Your task to perform on an android device: turn off data saver in the chrome app Image 0: 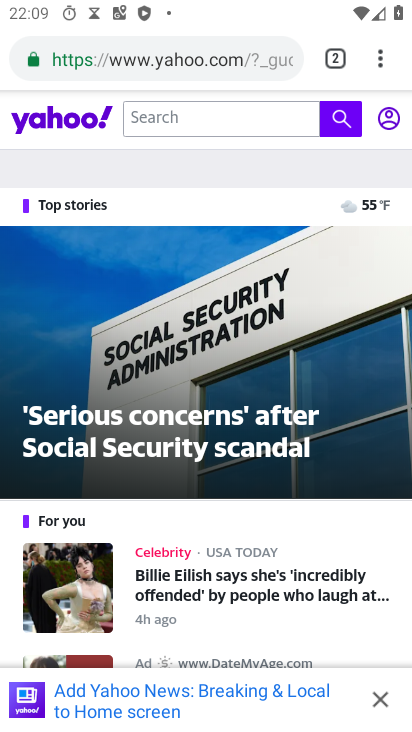
Step 0: press home button
Your task to perform on an android device: turn off data saver in the chrome app Image 1: 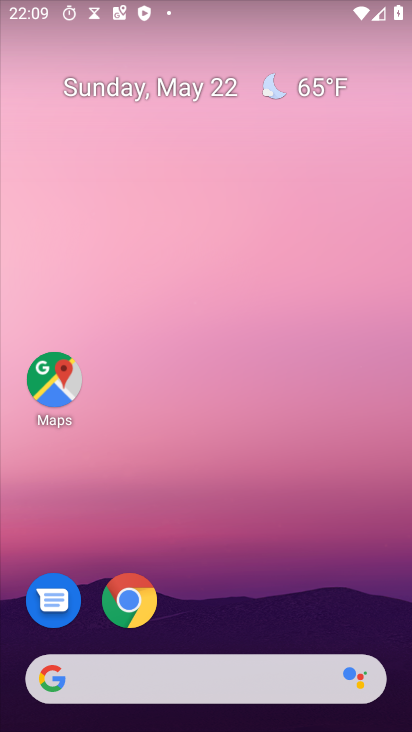
Step 1: drag from (243, 619) to (202, 280)
Your task to perform on an android device: turn off data saver in the chrome app Image 2: 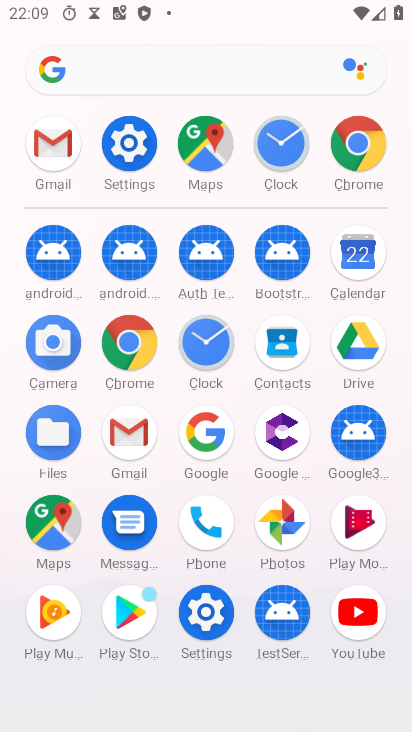
Step 2: click (352, 176)
Your task to perform on an android device: turn off data saver in the chrome app Image 3: 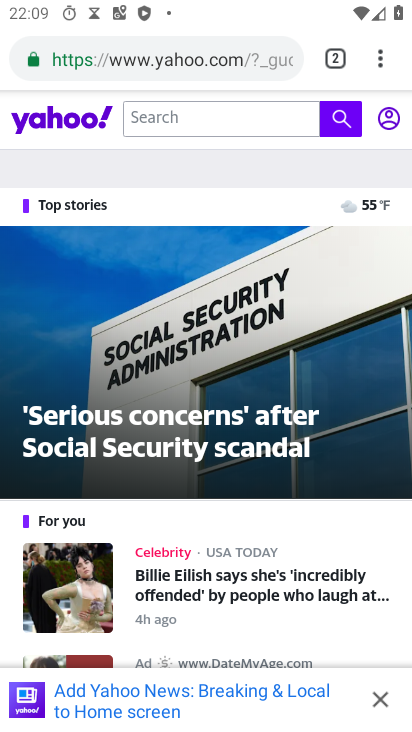
Step 3: click (383, 64)
Your task to perform on an android device: turn off data saver in the chrome app Image 4: 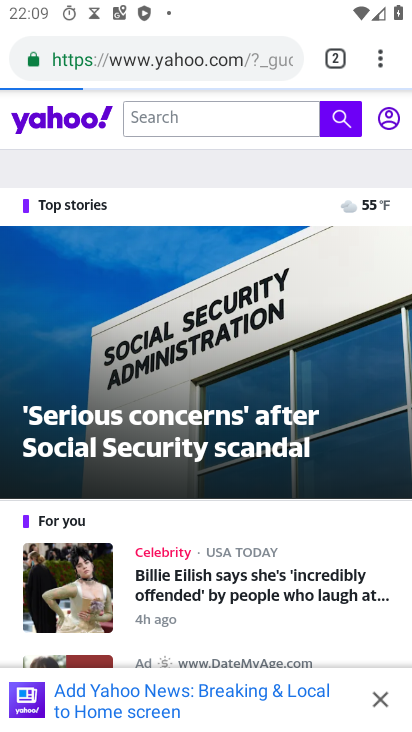
Step 4: click (383, 64)
Your task to perform on an android device: turn off data saver in the chrome app Image 5: 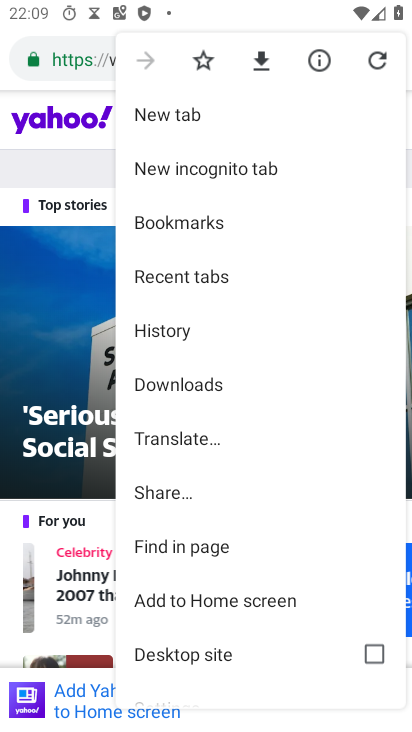
Step 5: drag from (196, 522) to (196, 367)
Your task to perform on an android device: turn off data saver in the chrome app Image 6: 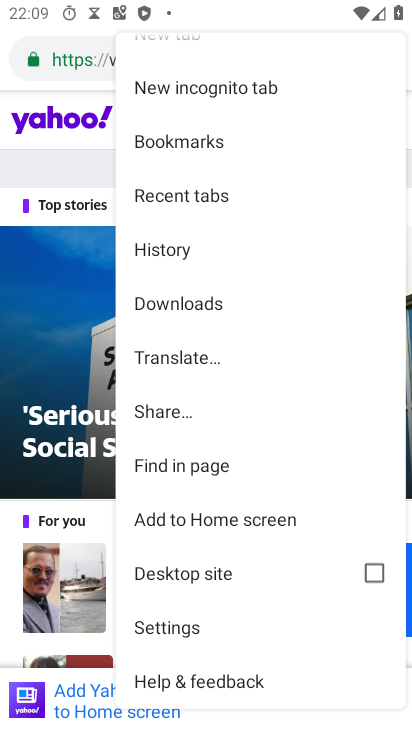
Step 6: click (186, 622)
Your task to perform on an android device: turn off data saver in the chrome app Image 7: 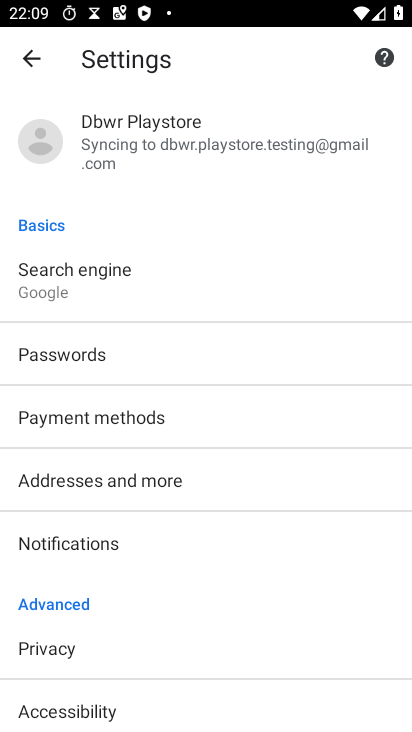
Step 7: drag from (143, 667) to (136, 413)
Your task to perform on an android device: turn off data saver in the chrome app Image 8: 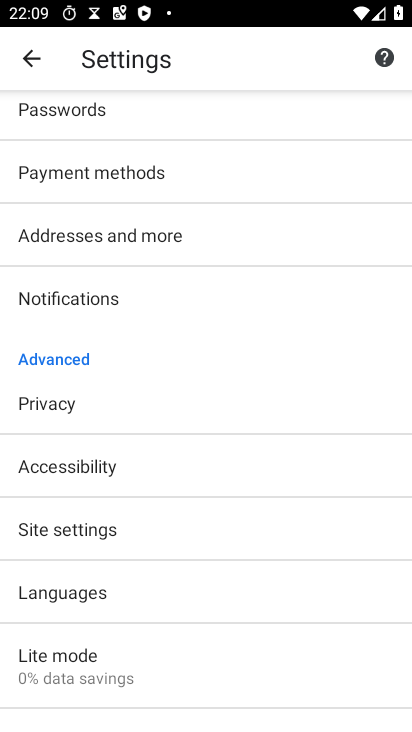
Step 8: drag from (161, 680) to (184, 393)
Your task to perform on an android device: turn off data saver in the chrome app Image 9: 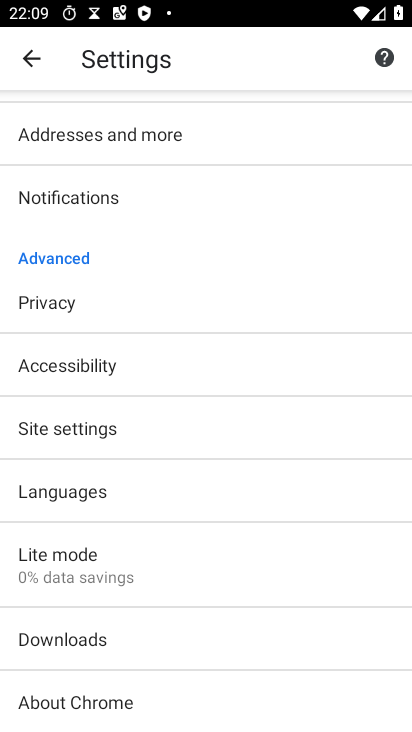
Step 9: click (69, 572)
Your task to perform on an android device: turn off data saver in the chrome app Image 10: 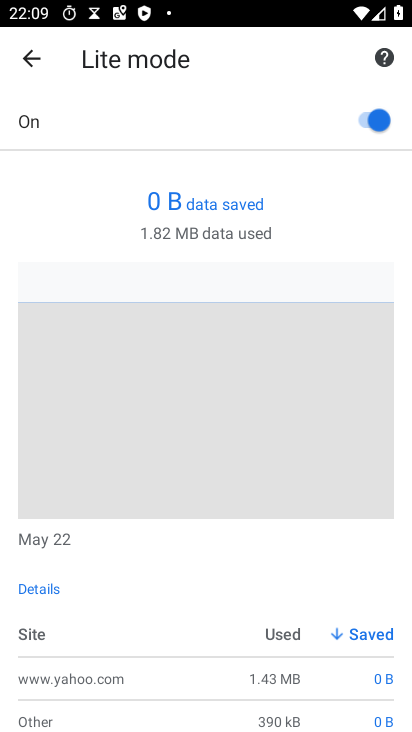
Step 10: click (368, 129)
Your task to perform on an android device: turn off data saver in the chrome app Image 11: 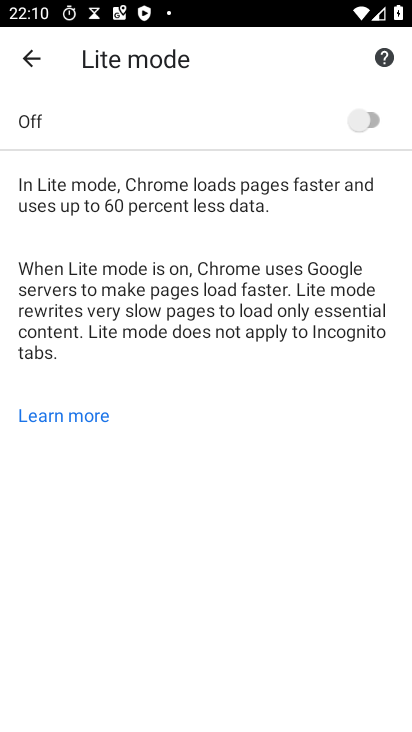
Step 11: task complete